Your task to perform on an android device: change the upload size in google photos Image 0: 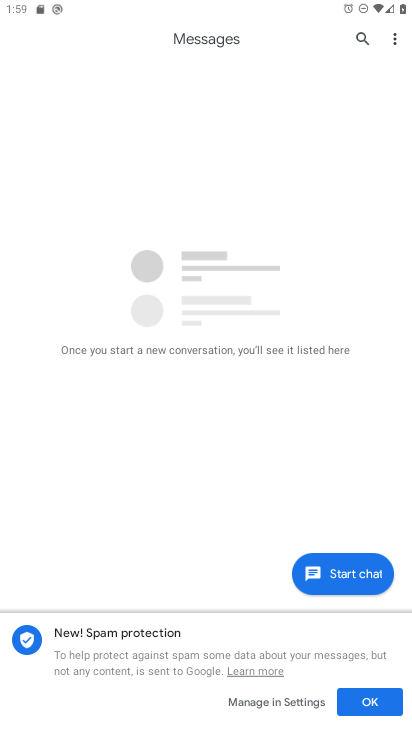
Step 0: drag from (215, 605) to (194, 361)
Your task to perform on an android device: change the upload size in google photos Image 1: 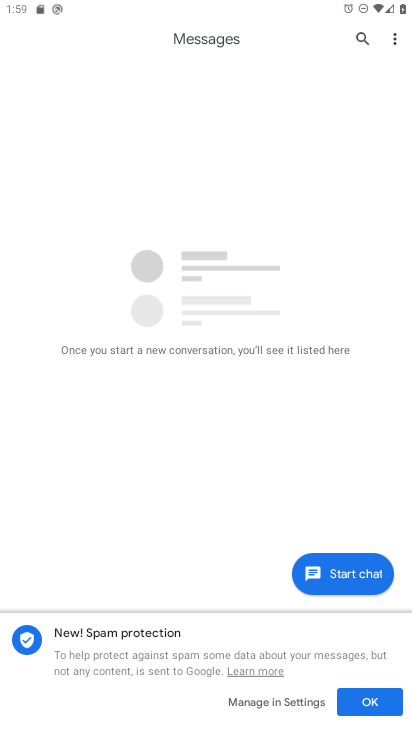
Step 1: drag from (220, 572) to (246, 277)
Your task to perform on an android device: change the upload size in google photos Image 2: 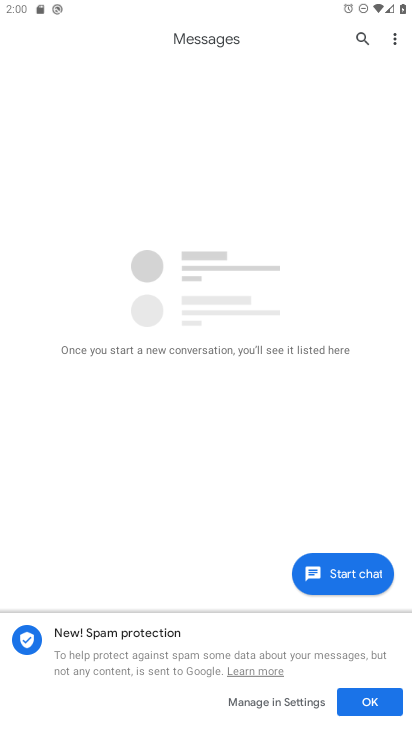
Step 2: drag from (201, 609) to (210, 320)
Your task to perform on an android device: change the upload size in google photos Image 3: 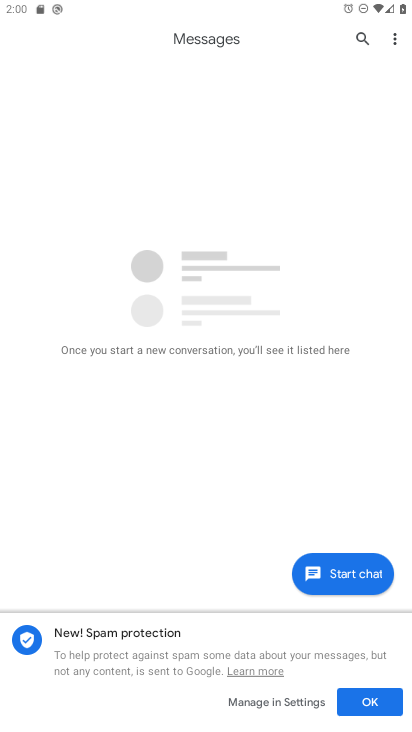
Step 3: drag from (237, 512) to (214, 4)
Your task to perform on an android device: change the upload size in google photos Image 4: 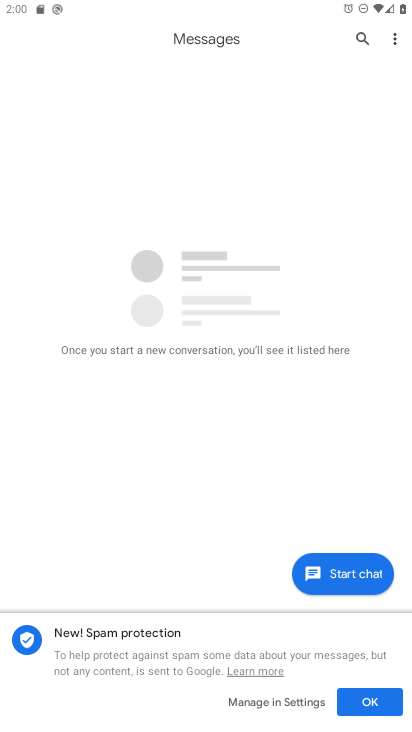
Step 4: press home button
Your task to perform on an android device: change the upload size in google photos Image 5: 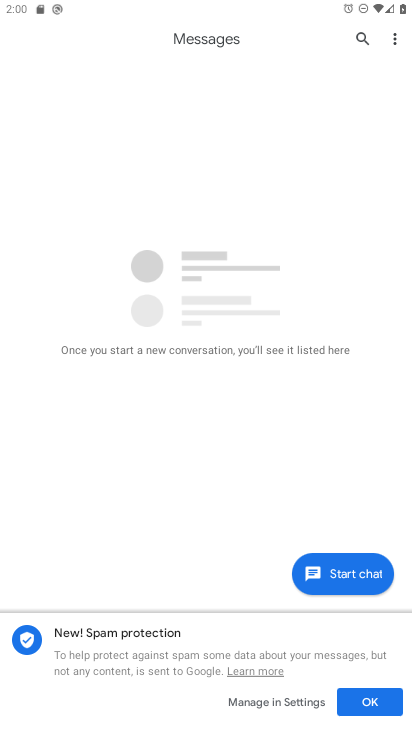
Step 5: drag from (194, 0) to (291, 36)
Your task to perform on an android device: change the upload size in google photos Image 6: 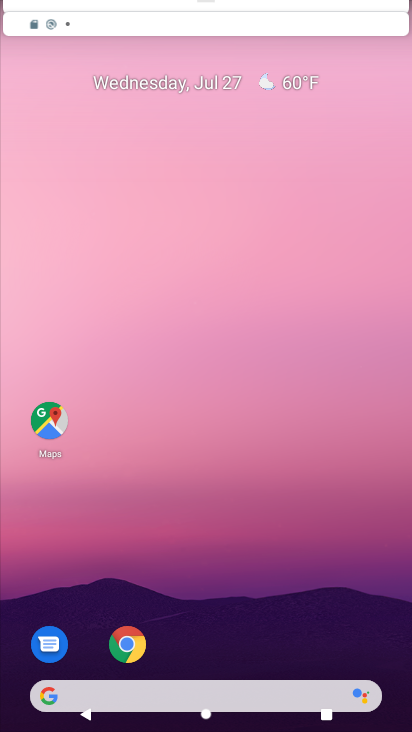
Step 6: drag from (239, 423) to (284, 80)
Your task to perform on an android device: change the upload size in google photos Image 7: 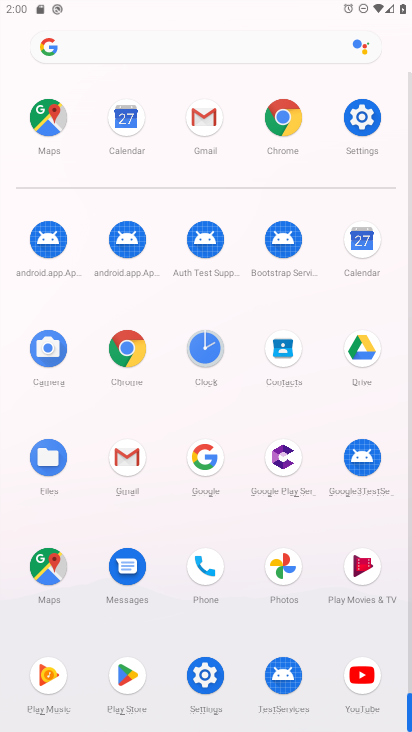
Step 7: click (278, 558)
Your task to perform on an android device: change the upload size in google photos Image 8: 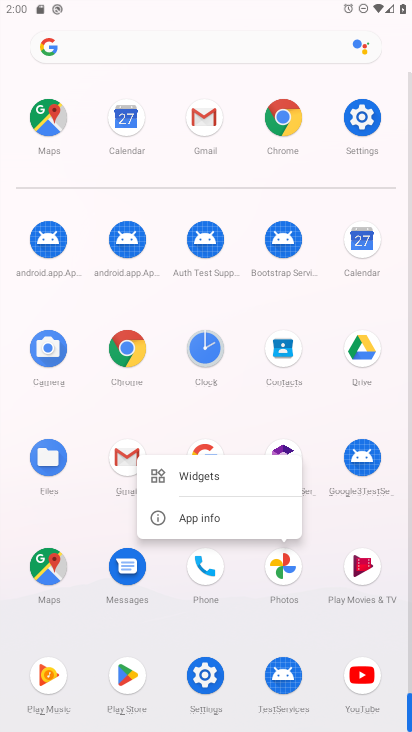
Step 8: click (190, 512)
Your task to perform on an android device: change the upload size in google photos Image 9: 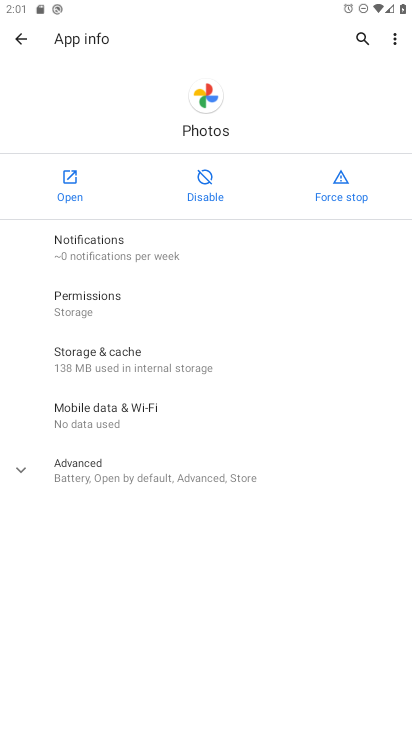
Step 9: drag from (169, 484) to (272, 137)
Your task to perform on an android device: change the upload size in google photos Image 10: 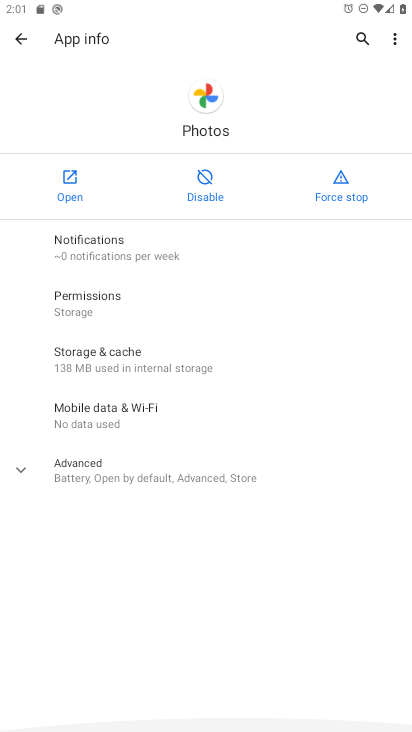
Step 10: click (51, 195)
Your task to perform on an android device: change the upload size in google photos Image 11: 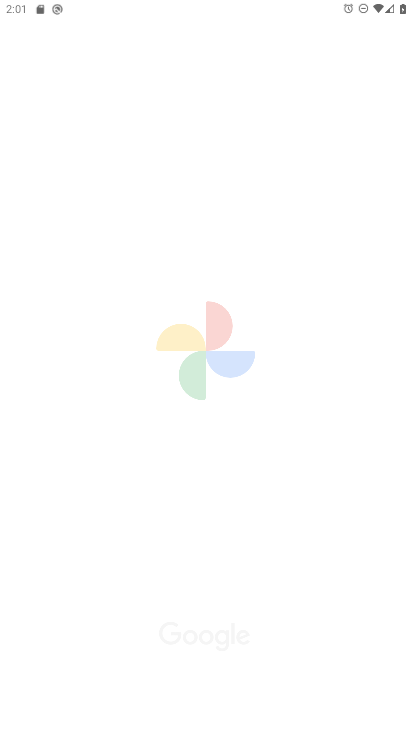
Step 11: drag from (284, 309) to (274, 244)
Your task to perform on an android device: change the upload size in google photos Image 12: 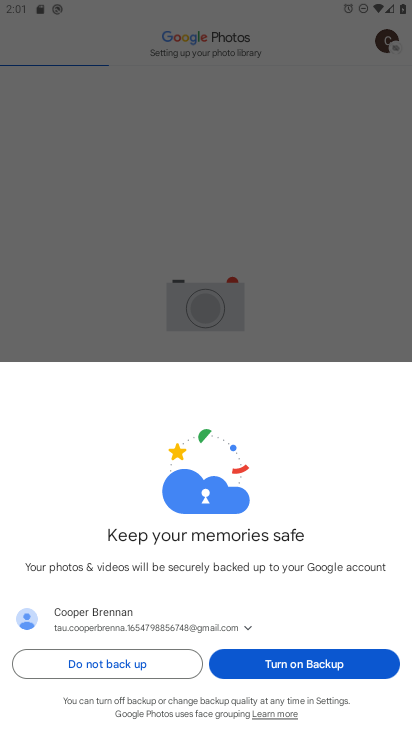
Step 12: click (96, 664)
Your task to perform on an android device: change the upload size in google photos Image 13: 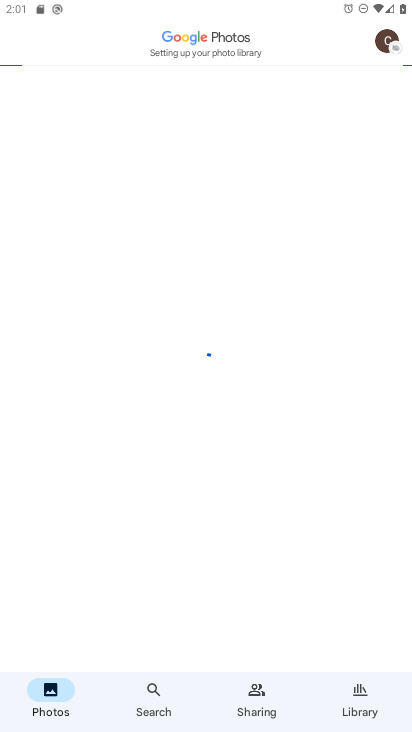
Step 13: click (388, 38)
Your task to perform on an android device: change the upload size in google photos Image 14: 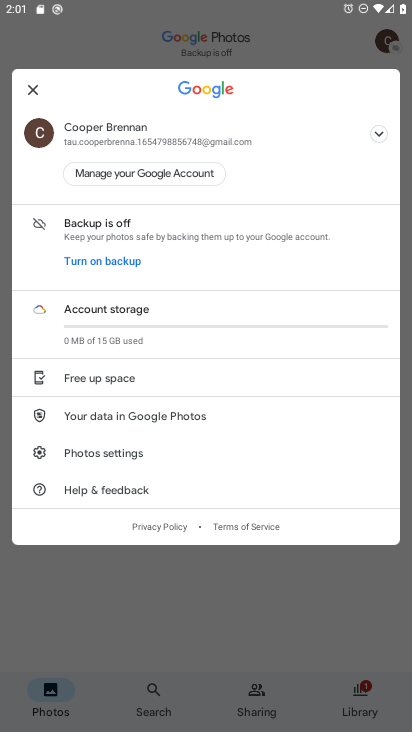
Step 14: click (101, 454)
Your task to perform on an android device: change the upload size in google photos Image 15: 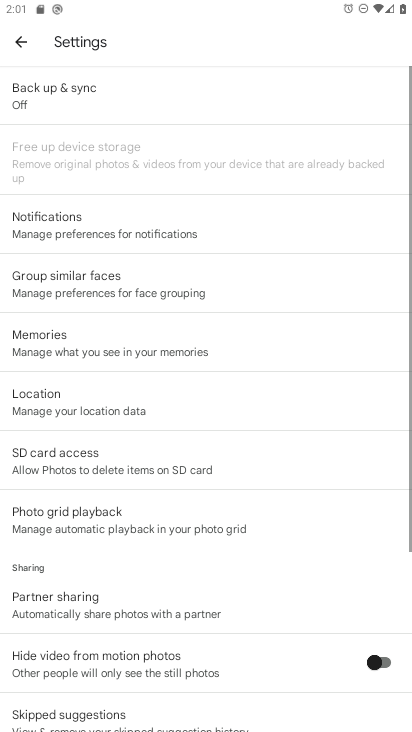
Step 15: drag from (185, 534) to (237, 223)
Your task to perform on an android device: change the upload size in google photos Image 16: 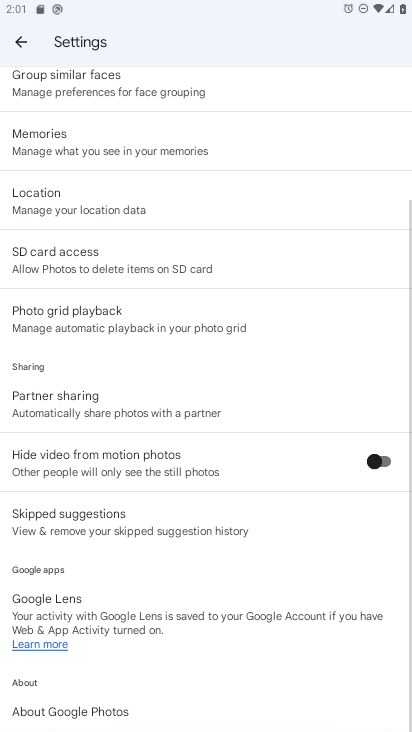
Step 16: drag from (160, 262) to (196, 714)
Your task to perform on an android device: change the upload size in google photos Image 17: 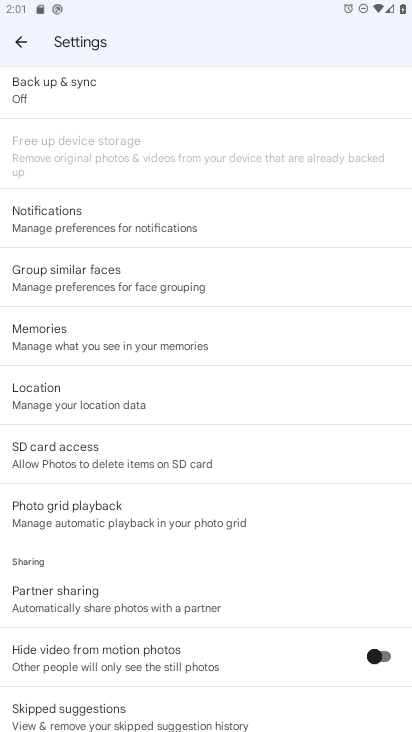
Step 17: drag from (88, 99) to (66, 71)
Your task to perform on an android device: change the upload size in google photos Image 18: 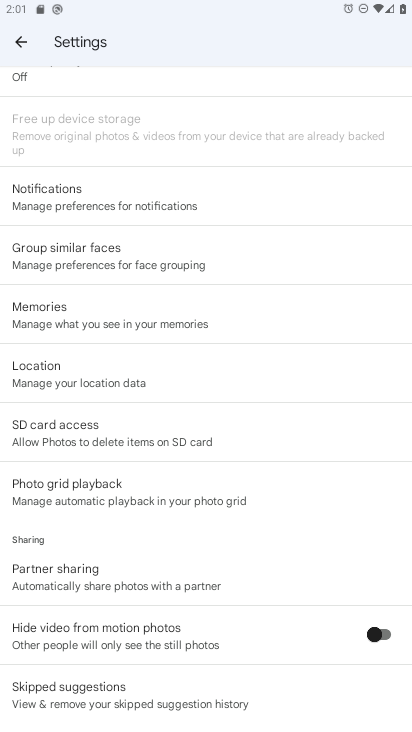
Step 18: drag from (194, 195) to (241, 602)
Your task to perform on an android device: change the upload size in google photos Image 19: 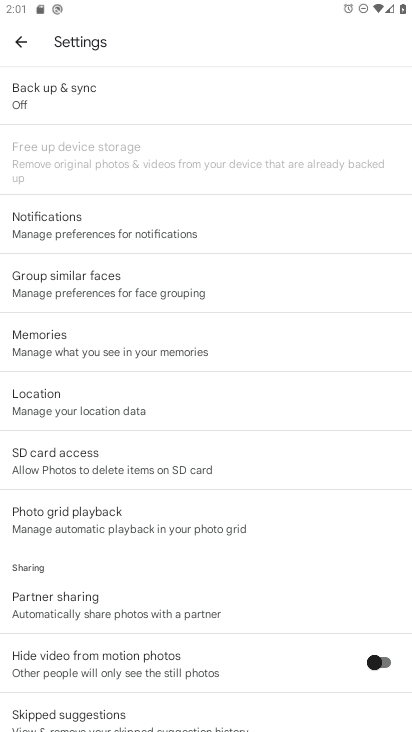
Step 19: click (93, 102)
Your task to perform on an android device: change the upload size in google photos Image 20: 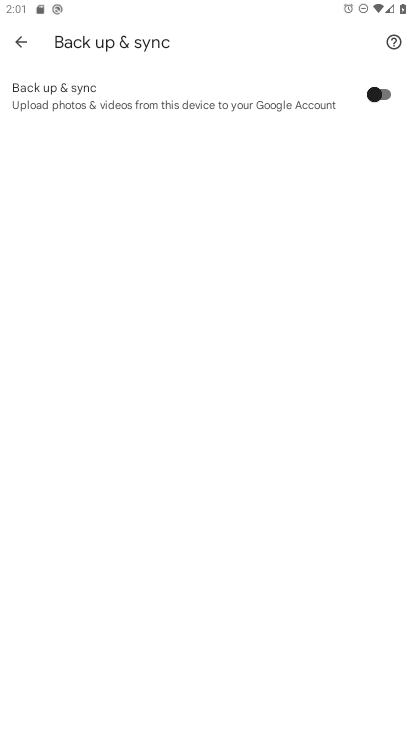
Step 20: click (111, 100)
Your task to perform on an android device: change the upload size in google photos Image 21: 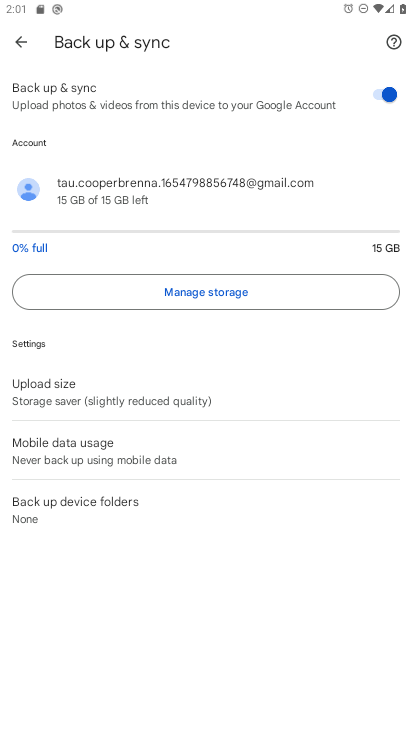
Step 21: click (331, 99)
Your task to perform on an android device: change the upload size in google photos Image 22: 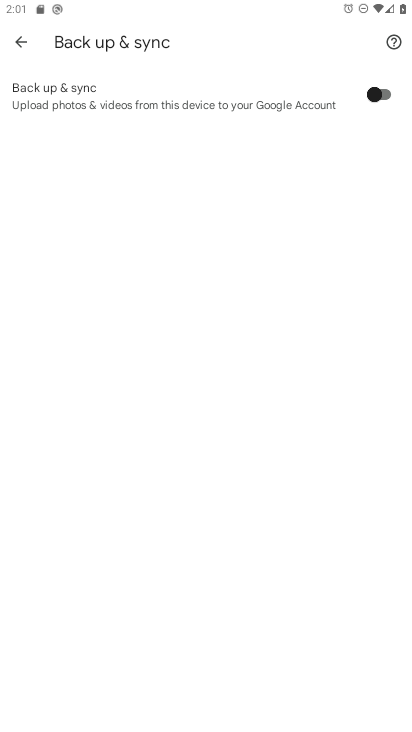
Step 22: click (370, 99)
Your task to perform on an android device: change the upload size in google photos Image 23: 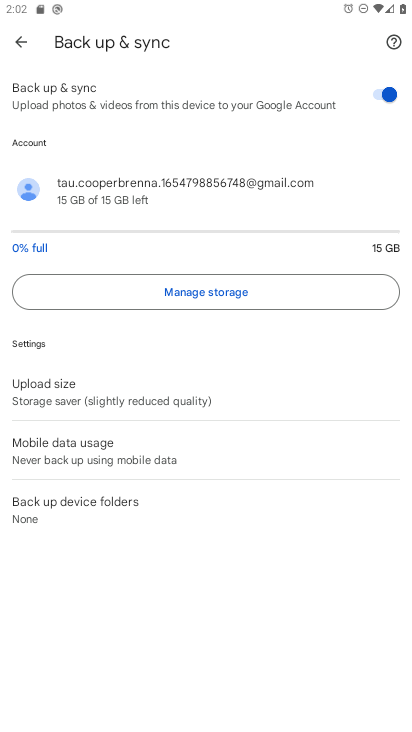
Step 23: drag from (220, 364) to (267, 118)
Your task to perform on an android device: change the upload size in google photos Image 24: 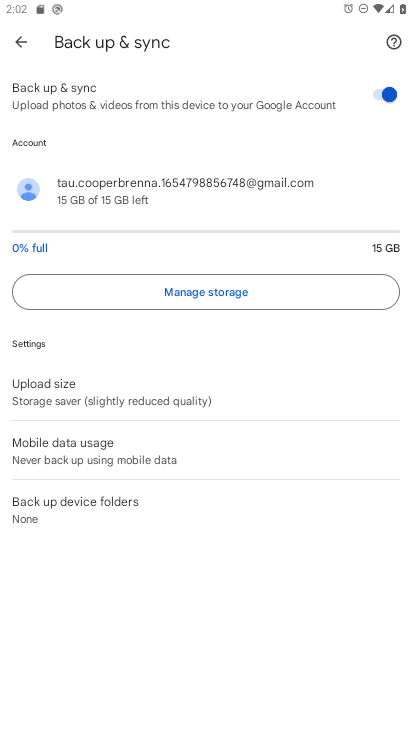
Step 24: click (103, 394)
Your task to perform on an android device: change the upload size in google photos Image 25: 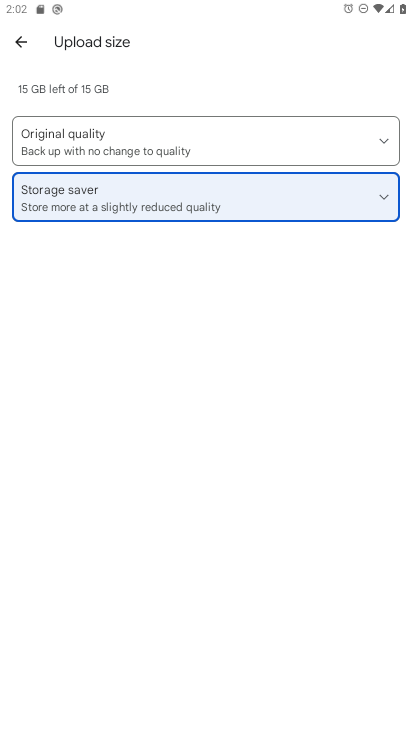
Step 25: drag from (216, 585) to (296, 170)
Your task to perform on an android device: change the upload size in google photos Image 26: 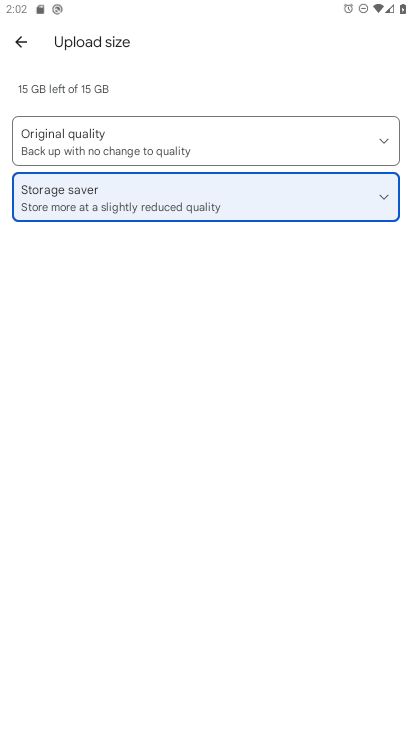
Step 26: click (233, 150)
Your task to perform on an android device: change the upload size in google photos Image 27: 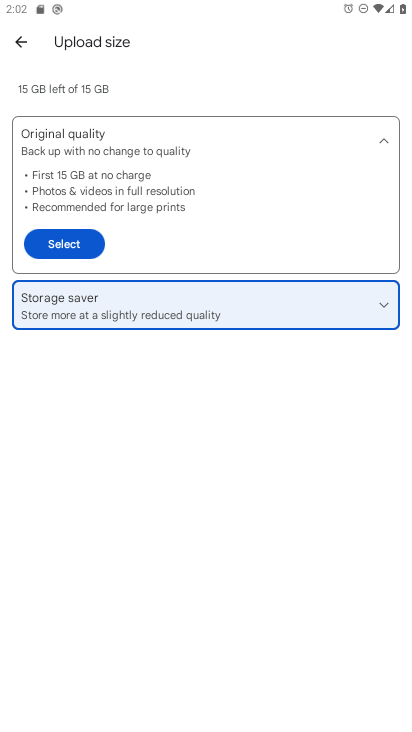
Step 27: click (58, 251)
Your task to perform on an android device: change the upload size in google photos Image 28: 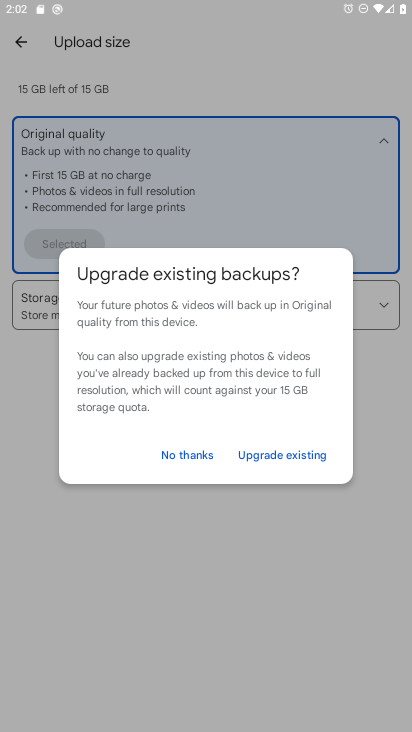
Step 28: task complete